Your task to perform on an android device: Open Google Image 0: 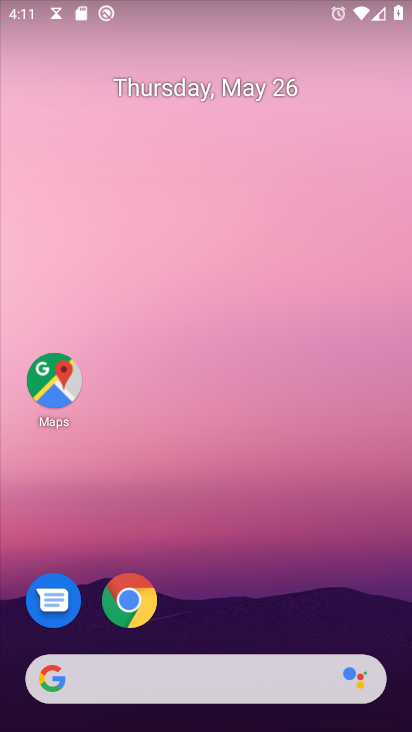
Step 0: click (183, 684)
Your task to perform on an android device: Open Google Image 1: 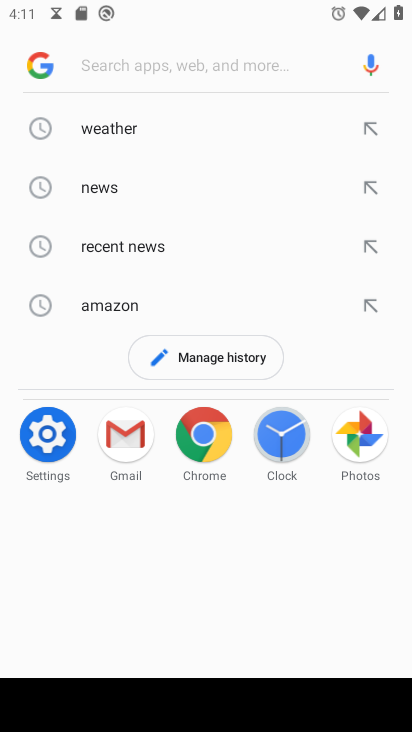
Step 1: click (33, 58)
Your task to perform on an android device: Open Google Image 2: 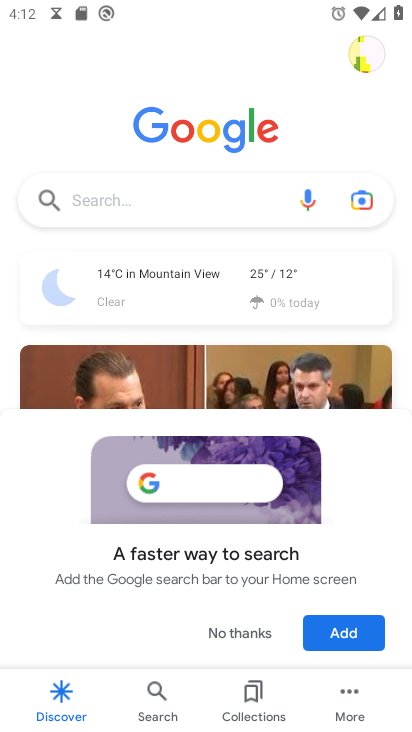
Step 2: task complete